Your task to perform on an android device: change the clock display to analog Image 0: 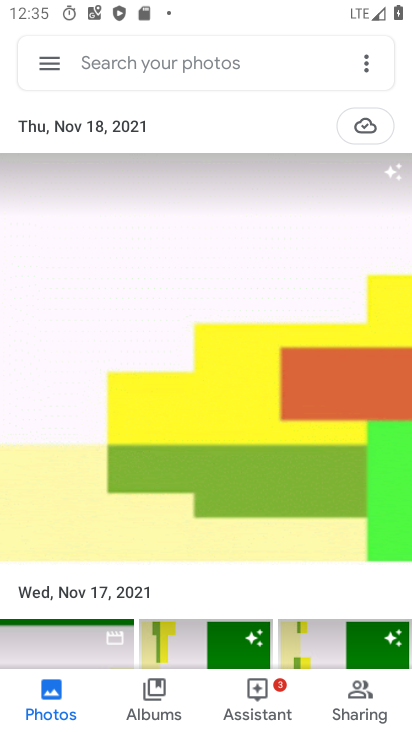
Step 0: press home button
Your task to perform on an android device: change the clock display to analog Image 1: 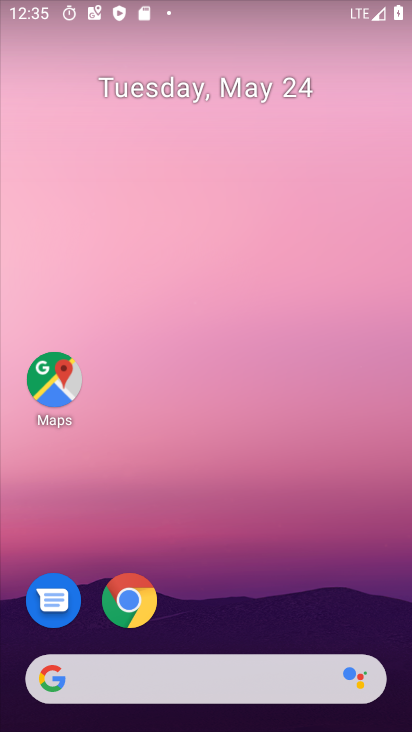
Step 1: drag from (277, 558) to (283, 124)
Your task to perform on an android device: change the clock display to analog Image 2: 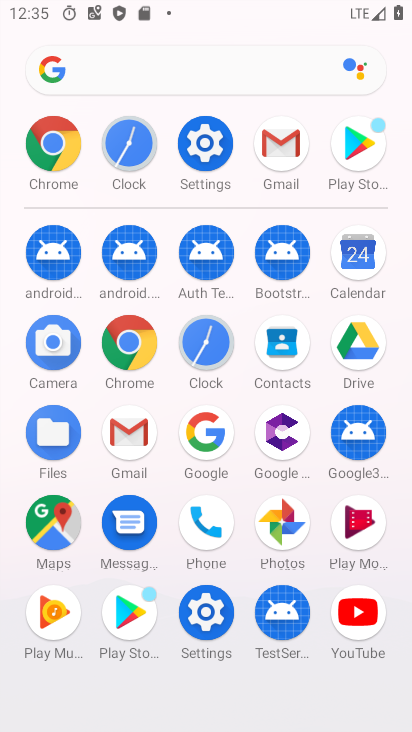
Step 2: click (215, 349)
Your task to perform on an android device: change the clock display to analog Image 3: 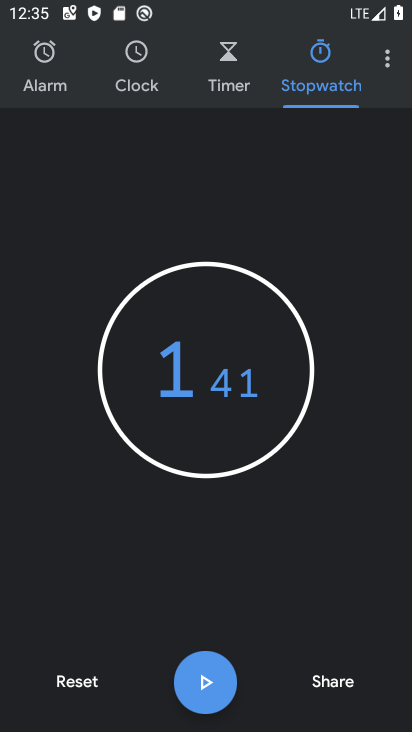
Step 3: click (387, 52)
Your task to perform on an android device: change the clock display to analog Image 4: 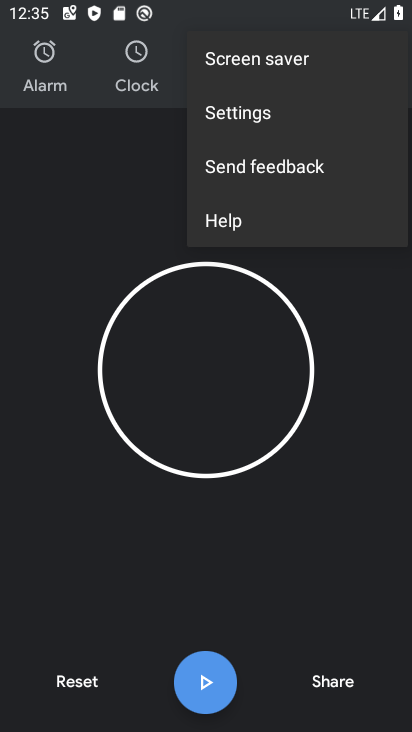
Step 4: click (242, 109)
Your task to perform on an android device: change the clock display to analog Image 5: 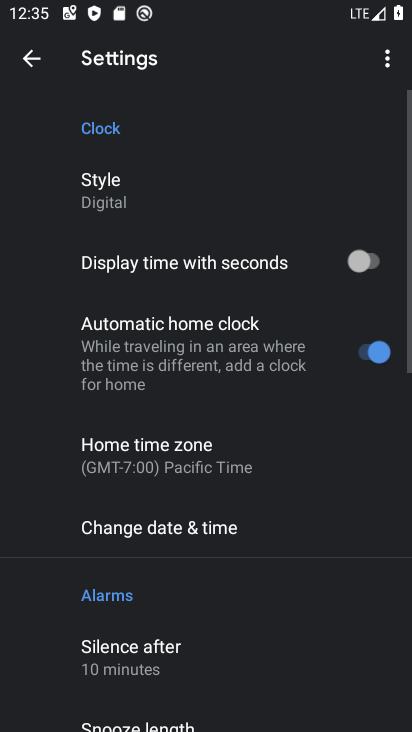
Step 5: click (108, 188)
Your task to perform on an android device: change the clock display to analog Image 6: 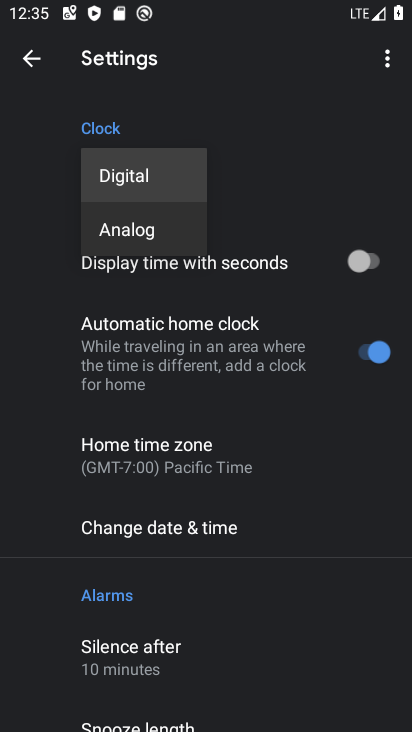
Step 6: click (127, 229)
Your task to perform on an android device: change the clock display to analog Image 7: 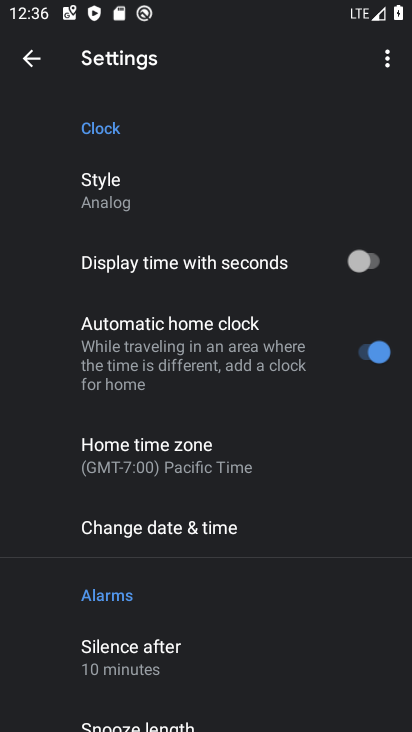
Step 7: task complete